Your task to perform on an android device: Open the Play Movies app and select the watchlist tab. Image 0: 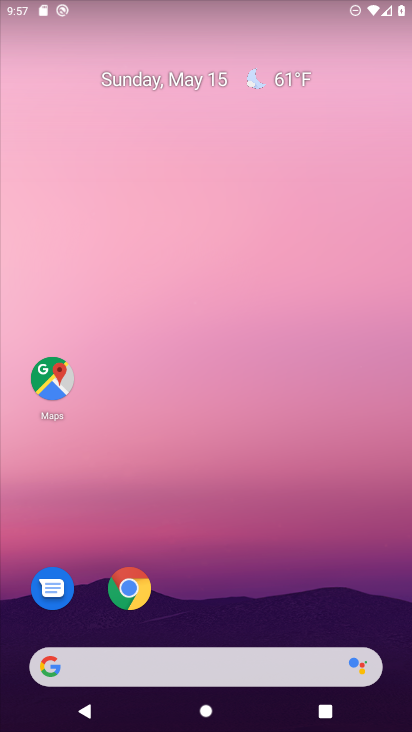
Step 0: drag from (213, 541) to (275, 74)
Your task to perform on an android device: Open the Play Movies app and select the watchlist tab. Image 1: 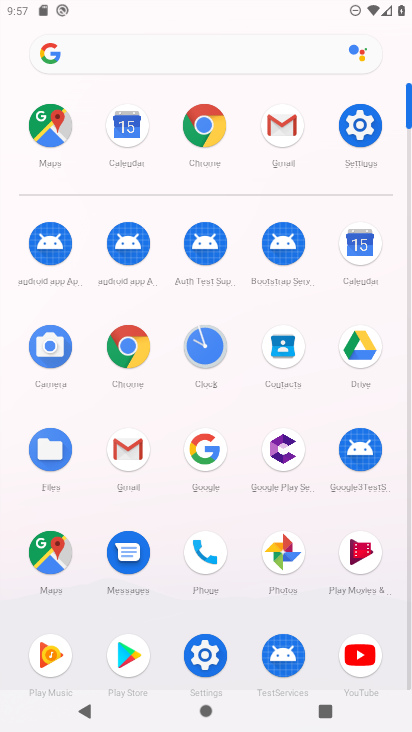
Step 1: click (375, 568)
Your task to perform on an android device: Open the Play Movies app and select the watchlist tab. Image 2: 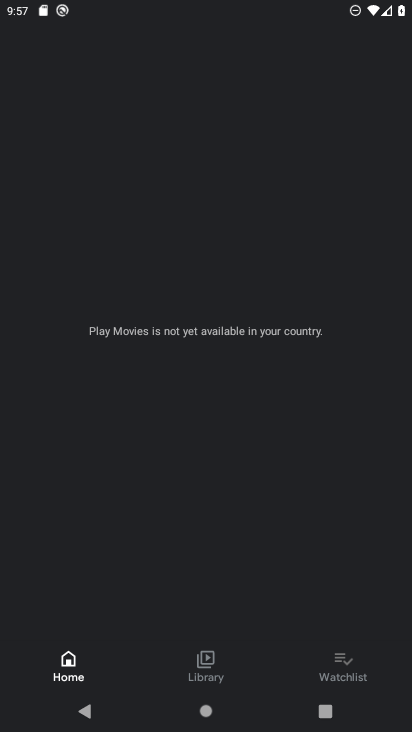
Step 2: click (324, 680)
Your task to perform on an android device: Open the Play Movies app and select the watchlist tab. Image 3: 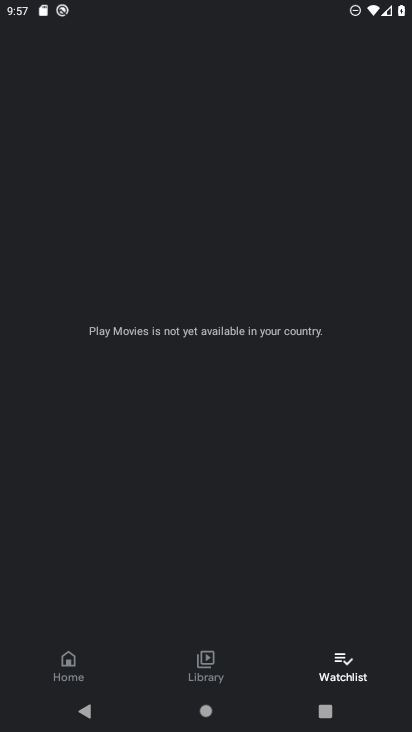
Step 3: task complete